Your task to perform on an android device: check google app version Image 0: 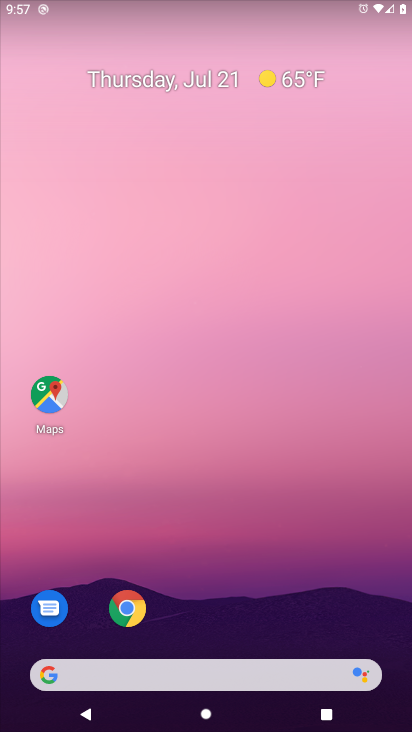
Step 0: click (186, 666)
Your task to perform on an android device: check google app version Image 1: 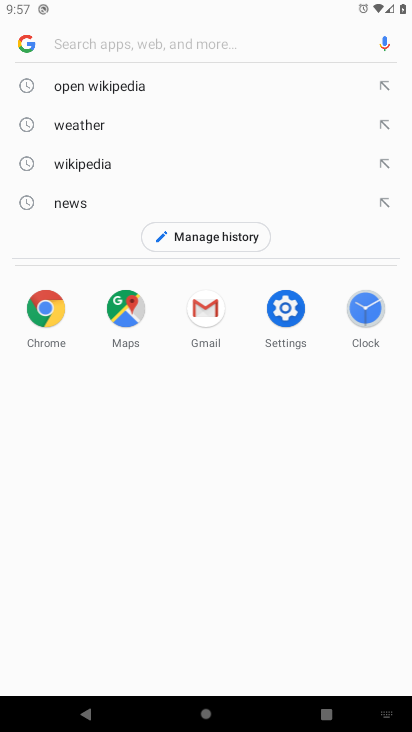
Step 1: click (26, 41)
Your task to perform on an android device: check google app version Image 2: 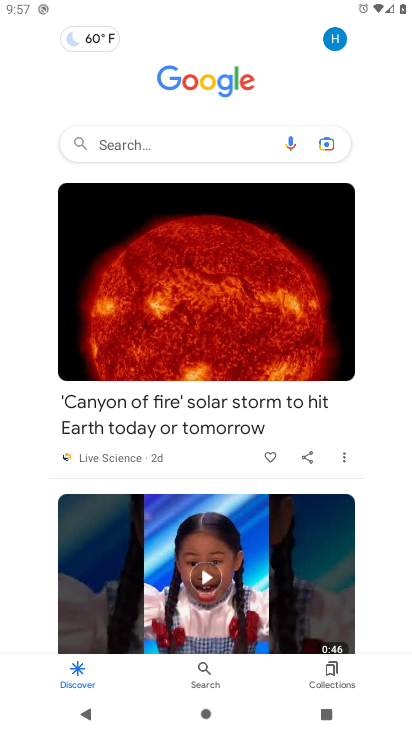
Step 2: click (191, 141)
Your task to perform on an android device: check google app version Image 3: 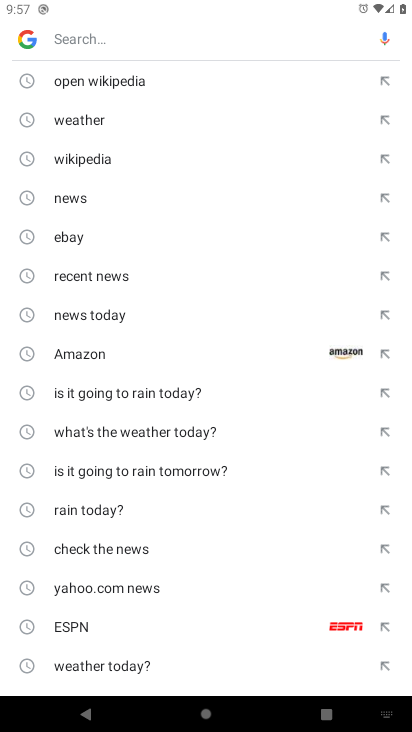
Step 3: click (36, 32)
Your task to perform on an android device: check google app version Image 4: 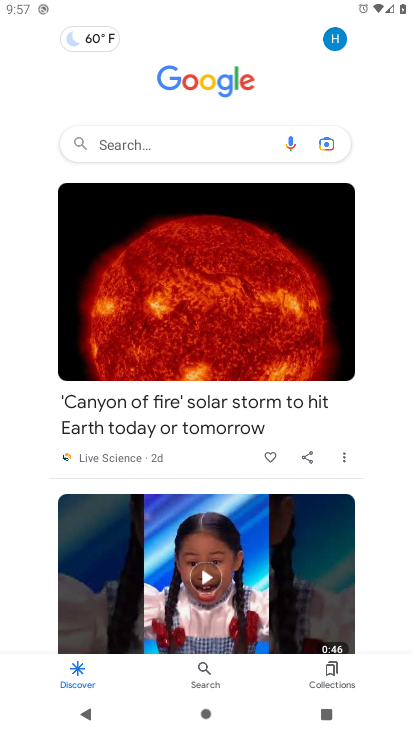
Step 4: click (331, 35)
Your task to perform on an android device: check google app version Image 5: 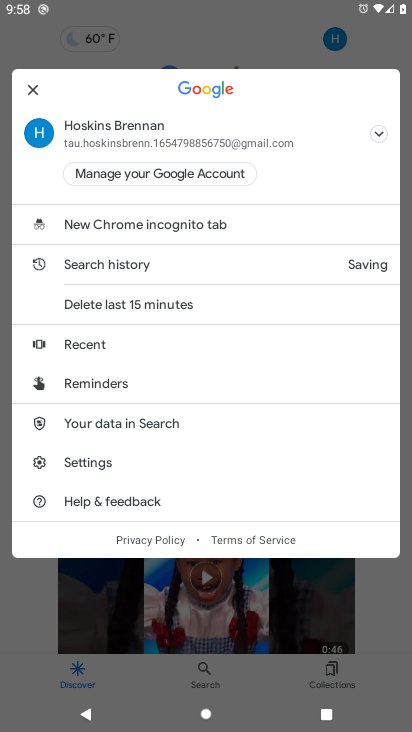
Step 5: click (88, 456)
Your task to perform on an android device: check google app version Image 6: 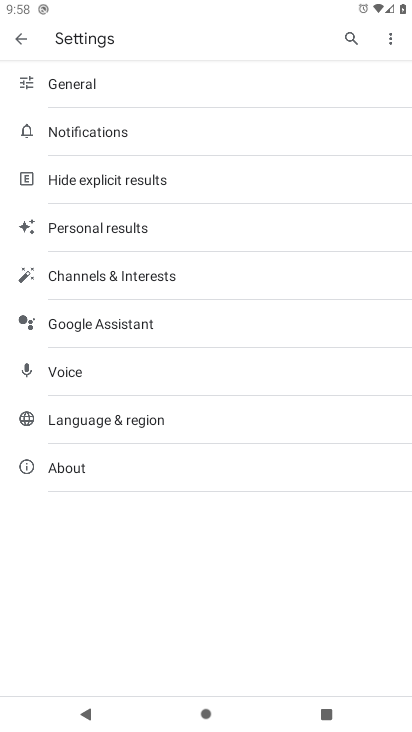
Step 6: click (85, 474)
Your task to perform on an android device: check google app version Image 7: 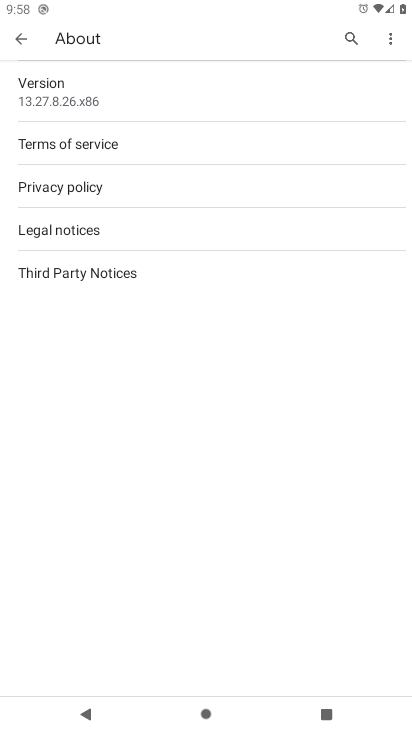
Step 7: task complete